Your task to perform on an android device: Go to internet settings Image 0: 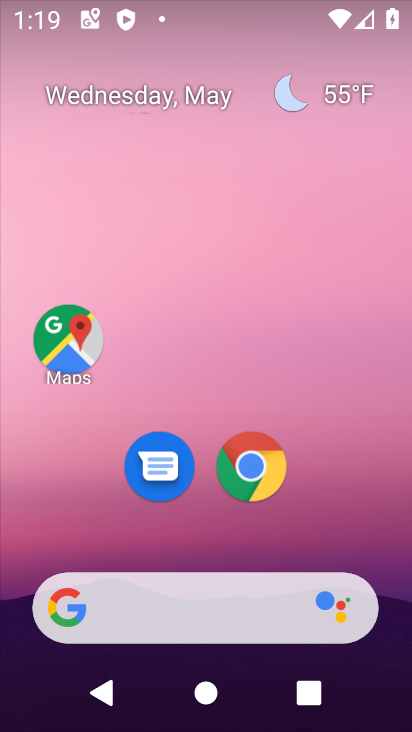
Step 0: drag from (215, 555) to (251, 8)
Your task to perform on an android device: Go to internet settings Image 1: 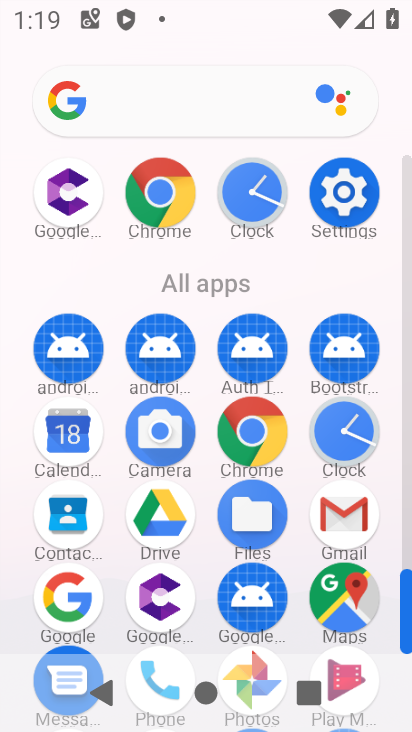
Step 1: click (336, 179)
Your task to perform on an android device: Go to internet settings Image 2: 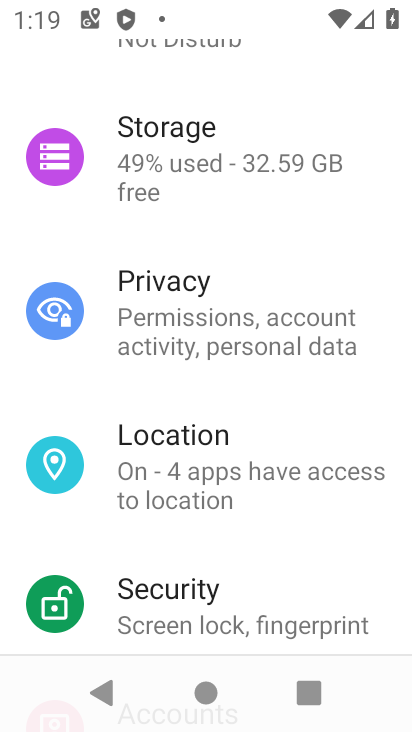
Step 2: drag from (198, 220) to (245, 417)
Your task to perform on an android device: Go to internet settings Image 3: 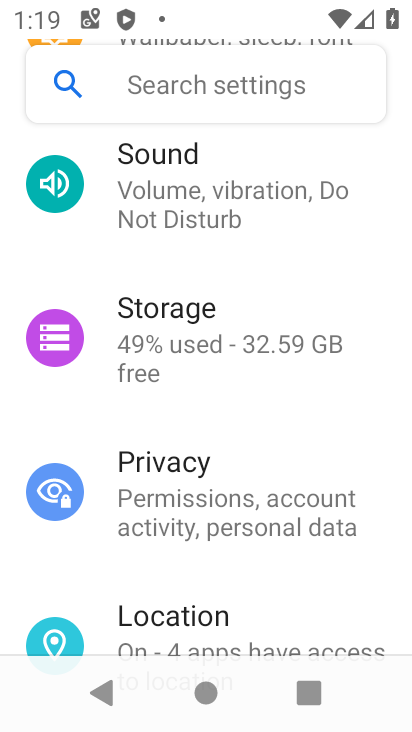
Step 3: drag from (179, 230) to (249, 436)
Your task to perform on an android device: Go to internet settings Image 4: 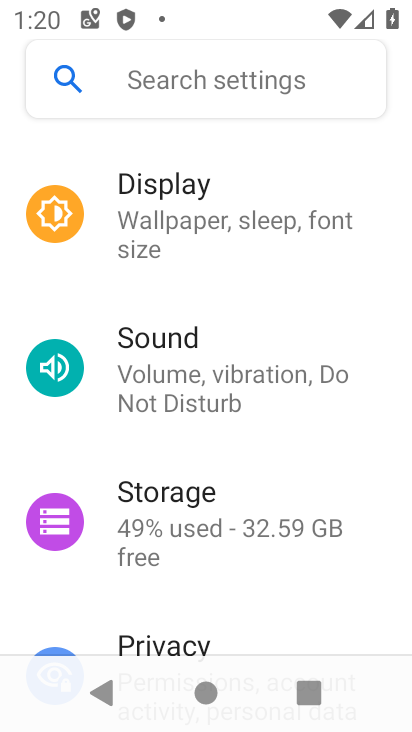
Step 4: drag from (243, 319) to (320, 579)
Your task to perform on an android device: Go to internet settings Image 5: 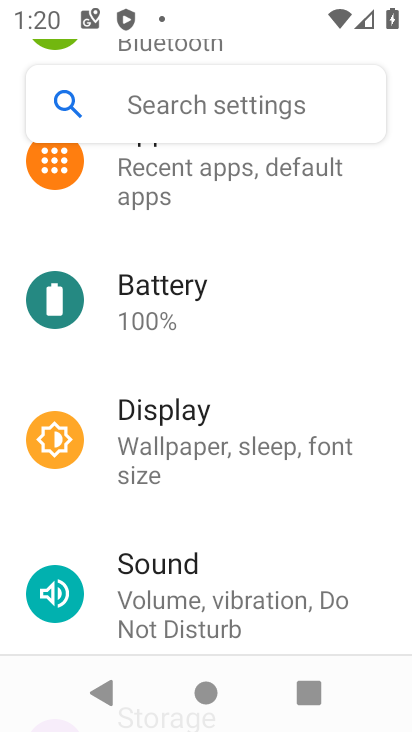
Step 5: drag from (302, 280) to (326, 584)
Your task to perform on an android device: Go to internet settings Image 6: 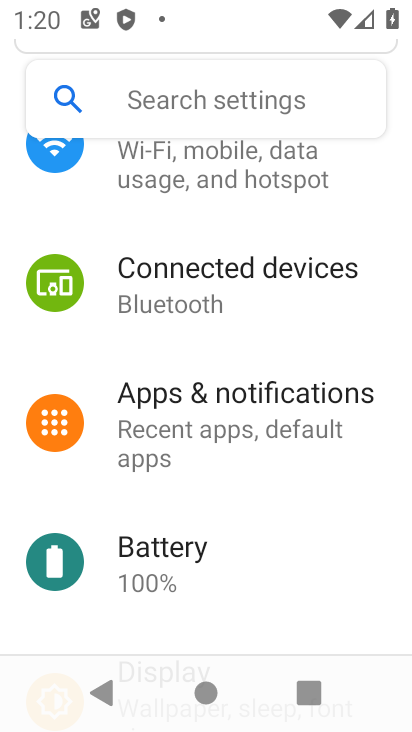
Step 6: click (257, 172)
Your task to perform on an android device: Go to internet settings Image 7: 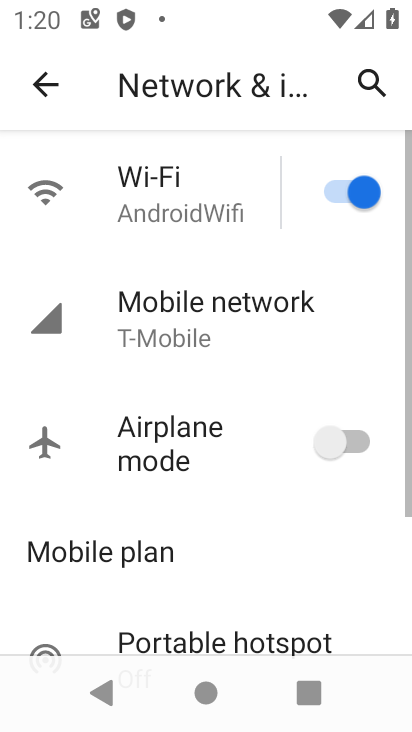
Step 7: click (122, 321)
Your task to perform on an android device: Go to internet settings Image 8: 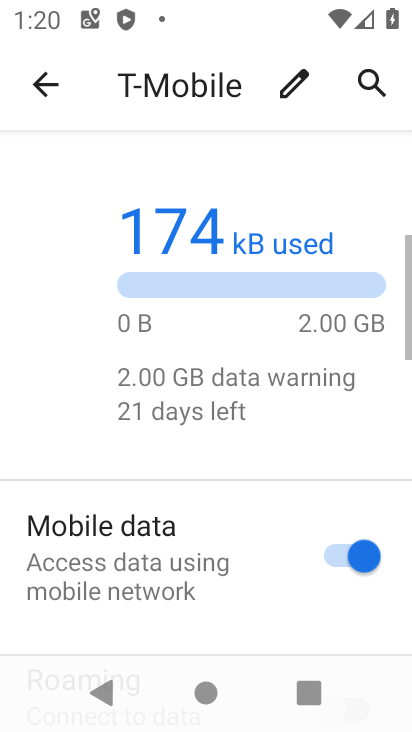
Step 8: task complete